Your task to perform on an android device: change timer sound Image 0: 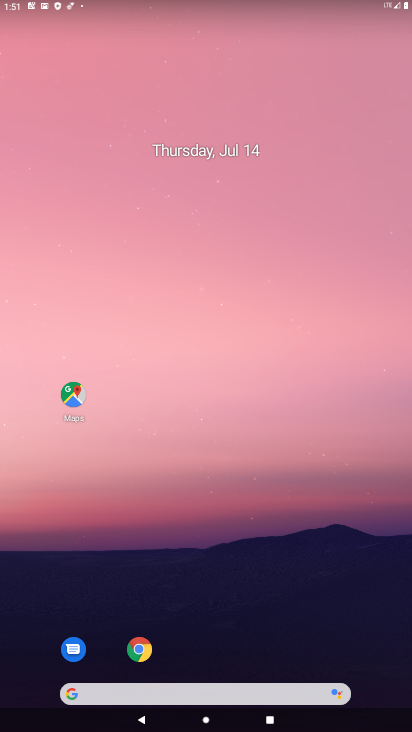
Step 0: drag from (372, 675) to (178, 114)
Your task to perform on an android device: change timer sound Image 1: 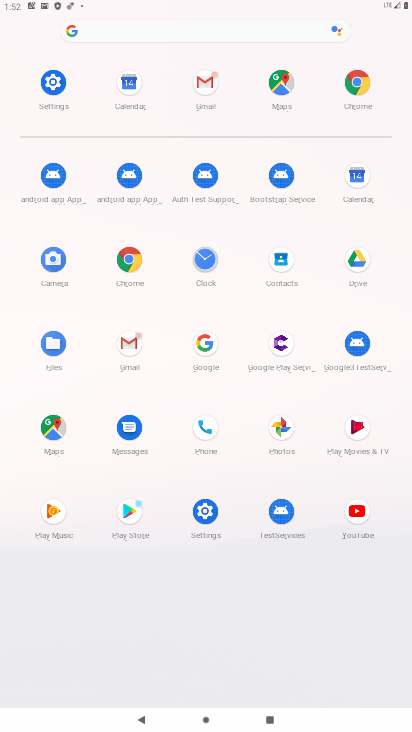
Step 1: click (219, 256)
Your task to perform on an android device: change timer sound Image 2: 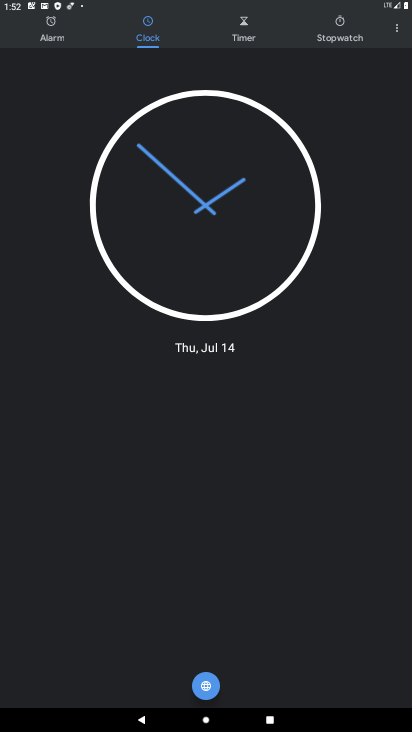
Step 2: click (395, 22)
Your task to perform on an android device: change timer sound Image 3: 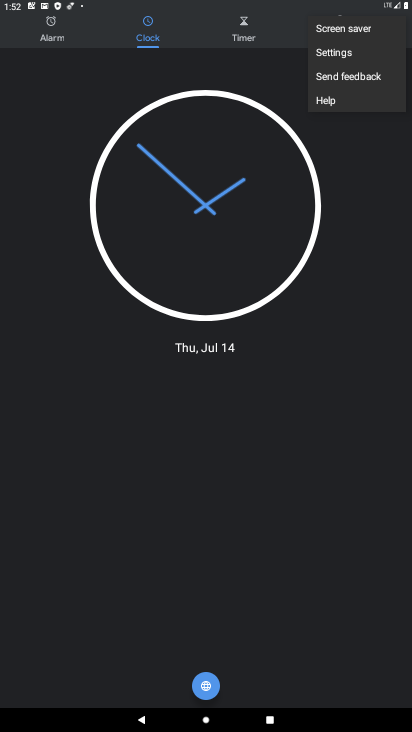
Step 3: click (346, 48)
Your task to perform on an android device: change timer sound Image 4: 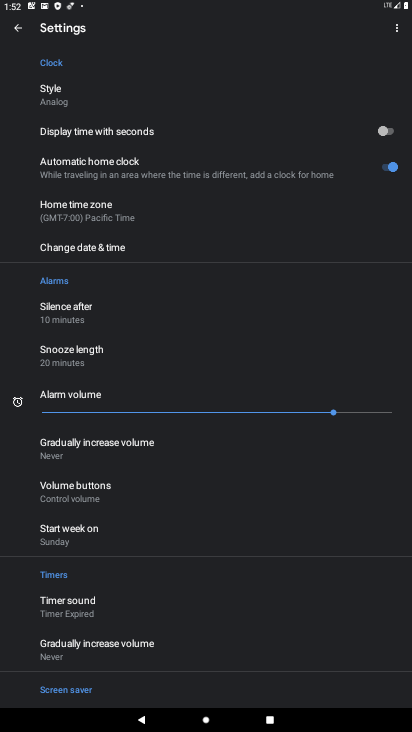
Step 4: drag from (156, 546) to (159, 336)
Your task to perform on an android device: change timer sound Image 5: 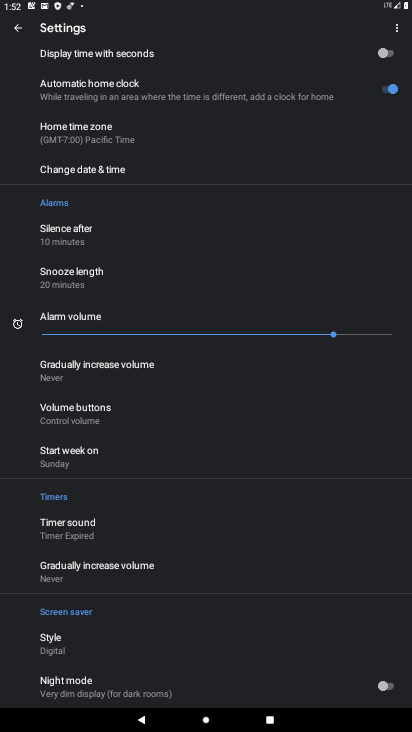
Step 5: click (91, 523)
Your task to perform on an android device: change timer sound Image 6: 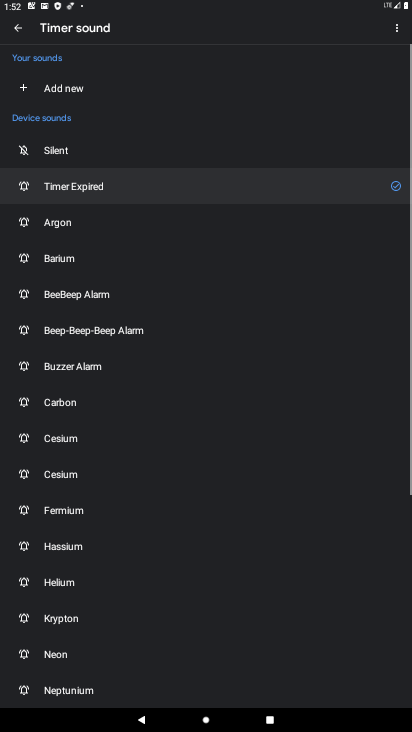
Step 6: click (75, 399)
Your task to perform on an android device: change timer sound Image 7: 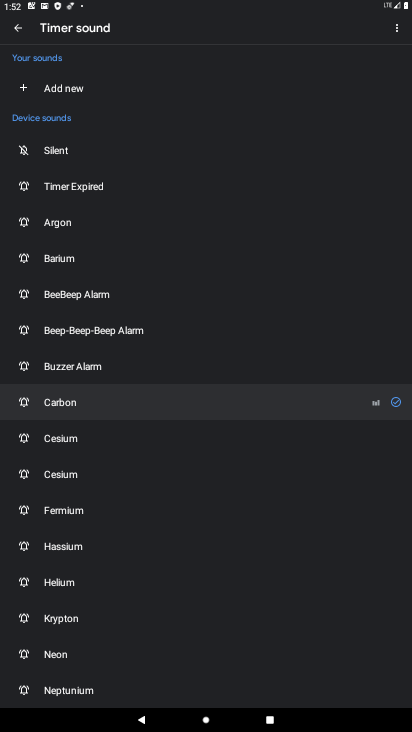
Step 7: task complete